Your task to perform on an android device: turn on improve location accuracy Image 0: 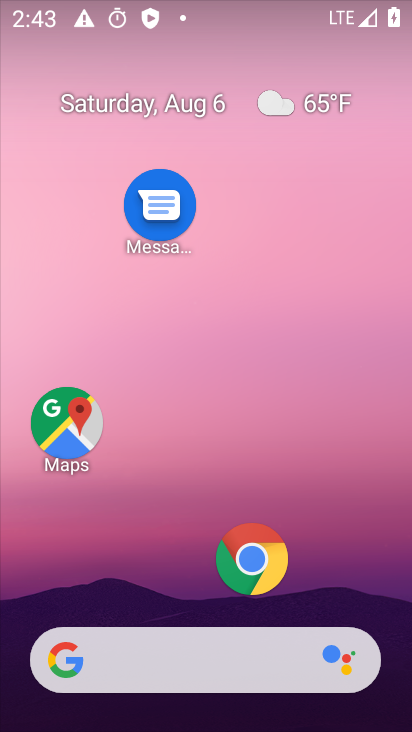
Step 0: drag from (173, 569) to (128, 59)
Your task to perform on an android device: turn on improve location accuracy Image 1: 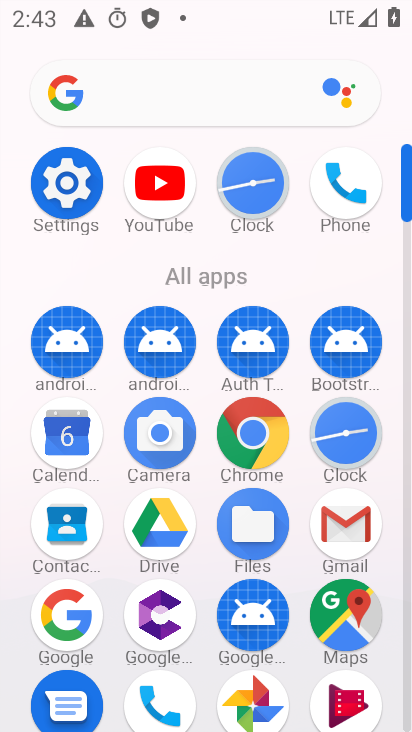
Step 1: click (63, 180)
Your task to perform on an android device: turn on improve location accuracy Image 2: 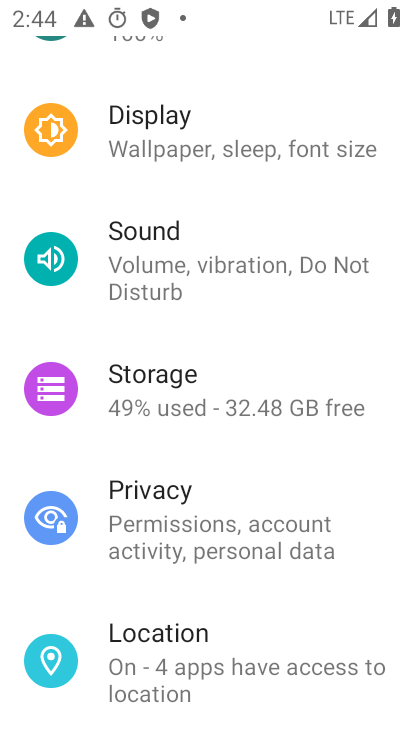
Step 2: drag from (195, 617) to (191, 306)
Your task to perform on an android device: turn on improve location accuracy Image 3: 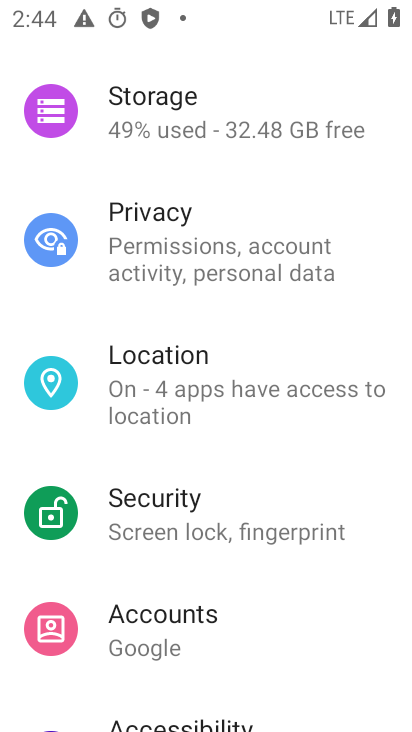
Step 3: drag from (179, 633) to (199, 409)
Your task to perform on an android device: turn on improve location accuracy Image 4: 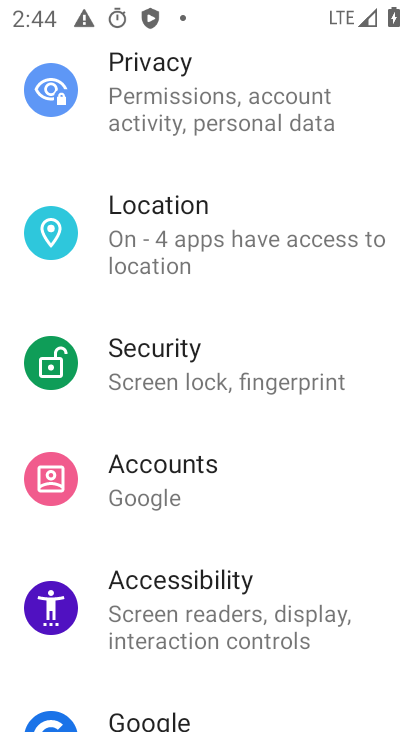
Step 4: click (149, 242)
Your task to perform on an android device: turn on improve location accuracy Image 5: 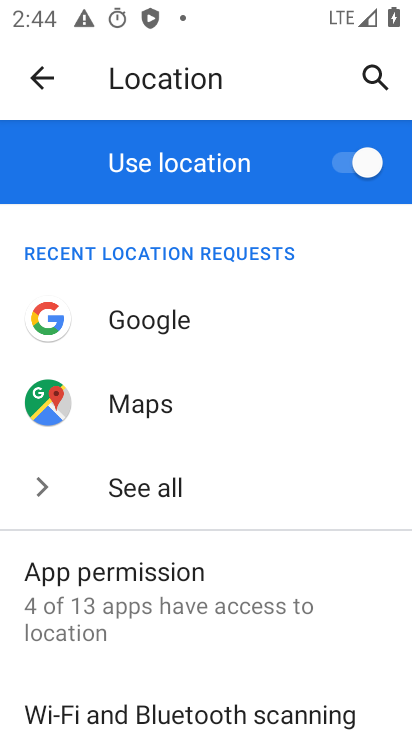
Step 5: drag from (255, 561) to (255, 372)
Your task to perform on an android device: turn on improve location accuracy Image 6: 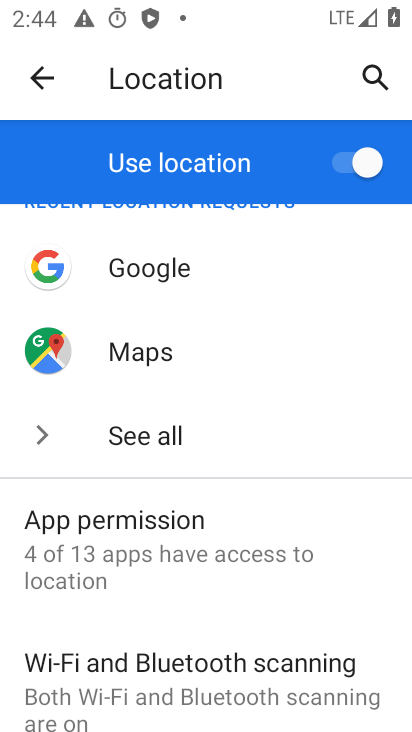
Step 6: drag from (220, 613) to (232, 270)
Your task to perform on an android device: turn on improve location accuracy Image 7: 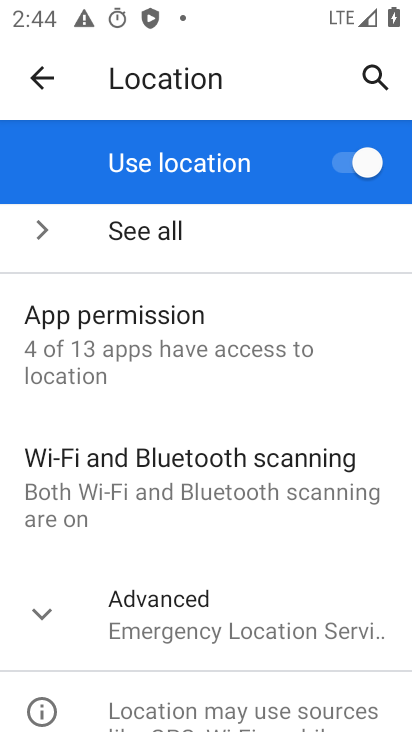
Step 7: drag from (219, 557) to (223, 357)
Your task to perform on an android device: turn on improve location accuracy Image 8: 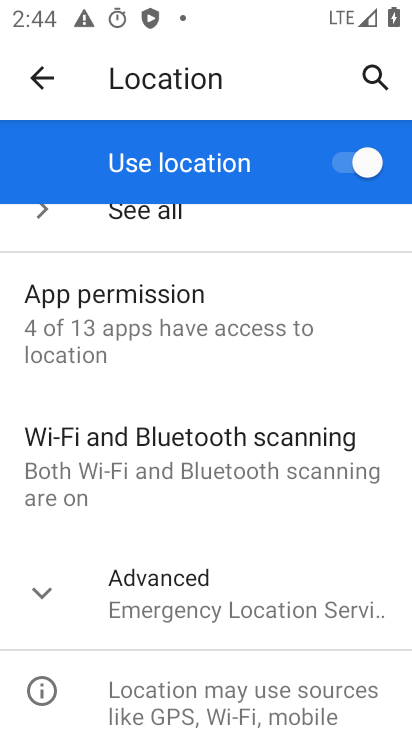
Step 8: drag from (113, 633) to (113, 397)
Your task to perform on an android device: turn on improve location accuracy Image 9: 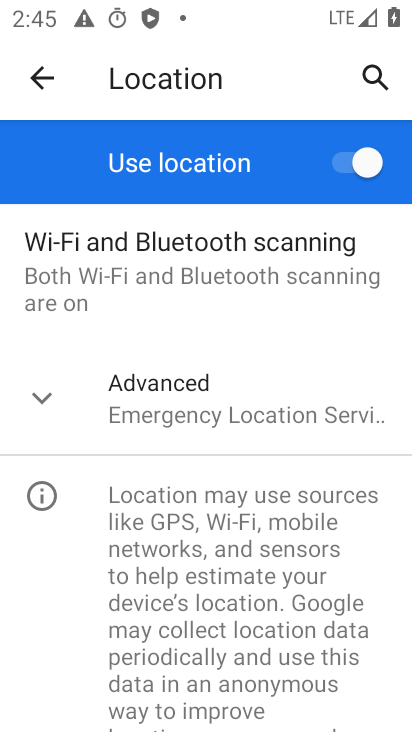
Step 9: click (149, 407)
Your task to perform on an android device: turn on improve location accuracy Image 10: 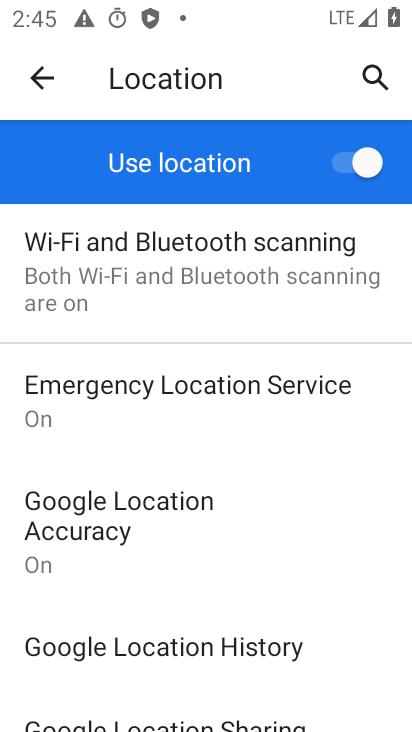
Step 10: click (120, 542)
Your task to perform on an android device: turn on improve location accuracy Image 11: 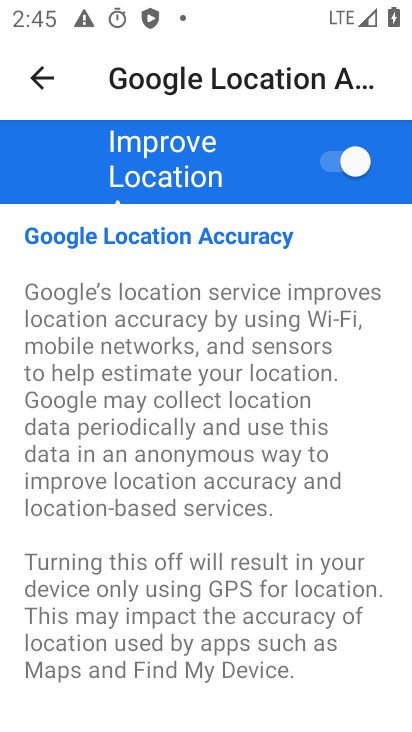
Step 11: task complete